Your task to perform on an android device: Search for pizza restaurants on Maps Image 0: 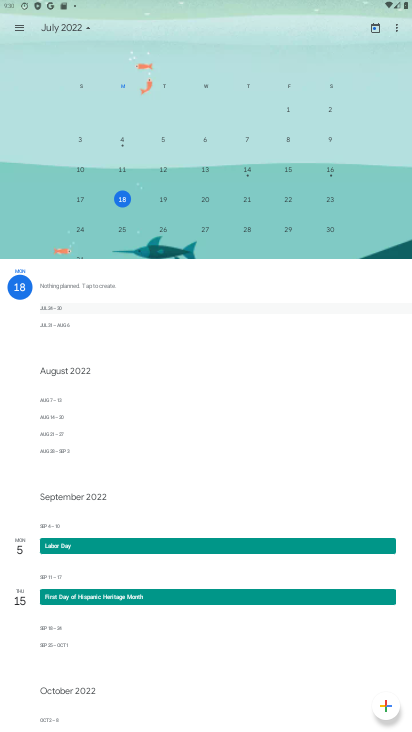
Step 0: press home button
Your task to perform on an android device: Search for pizza restaurants on Maps Image 1: 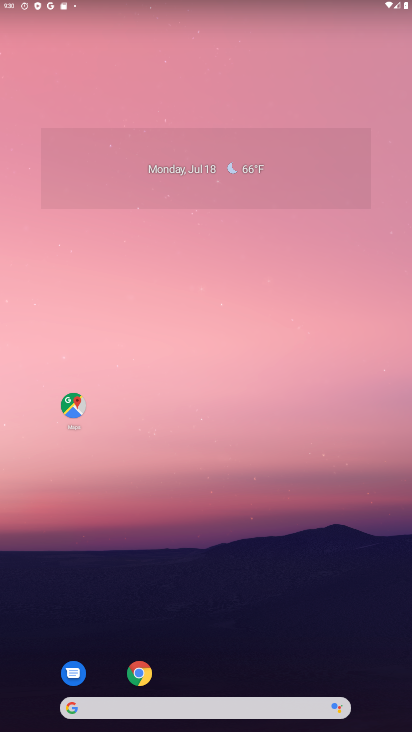
Step 1: click (76, 404)
Your task to perform on an android device: Search for pizza restaurants on Maps Image 2: 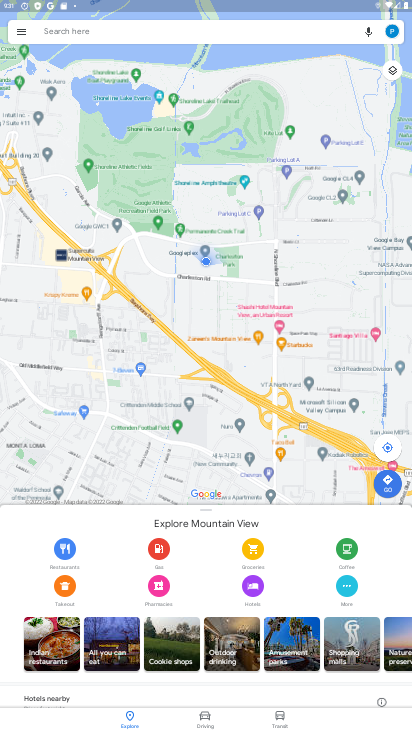
Step 2: click (189, 24)
Your task to perform on an android device: Search for pizza restaurants on Maps Image 3: 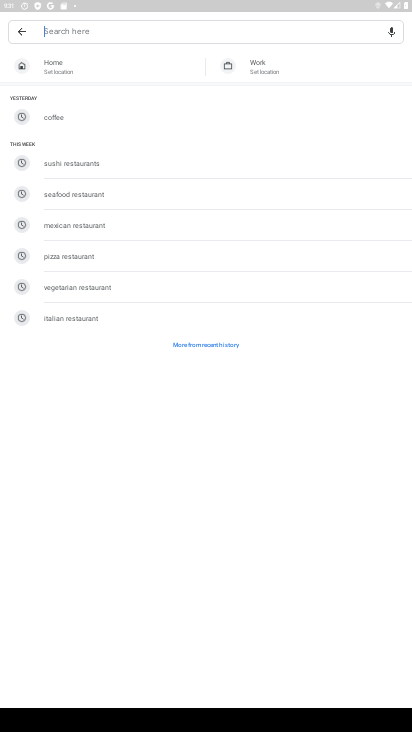
Step 3: click (83, 262)
Your task to perform on an android device: Search for pizza restaurants on Maps Image 4: 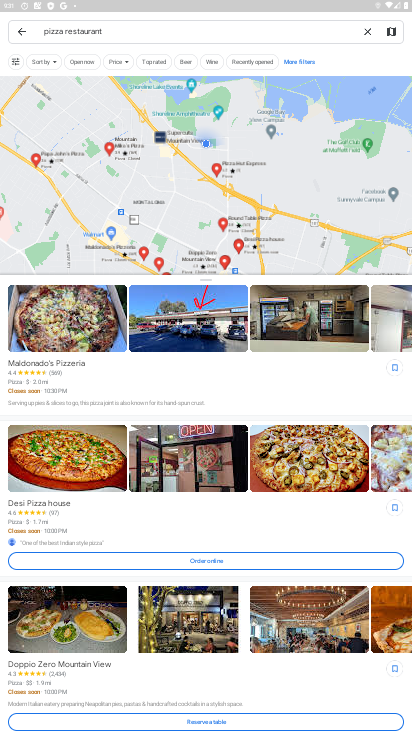
Step 4: task complete